Your task to perform on an android device: Open calendar and show me the fourth week of next month Image 0: 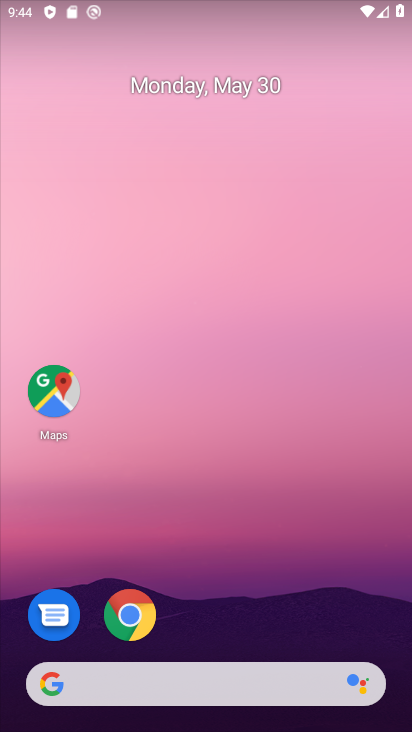
Step 0: drag from (249, 726) to (190, 66)
Your task to perform on an android device: Open calendar and show me the fourth week of next month Image 1: 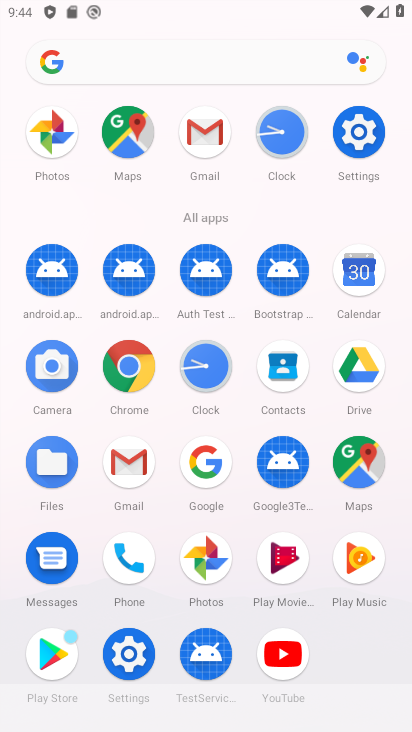
Step 1: click (360, 271)
Your task to perform on an android device: Open calendar and show me the fourth week of next month Image 2: 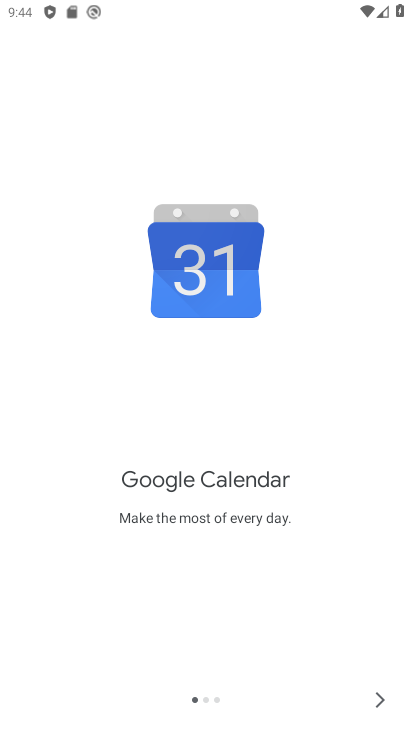
Step 2: click (377, 693)
Your task to perform on an android device: Open calendar and show me the fourth week of next month Image 3: 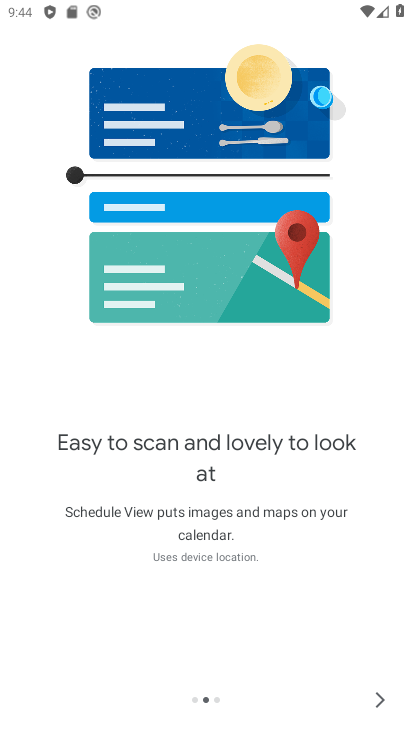
Step 3: click (379, 697)
Your task to perform on an android device: Open calendar and show me the fourth week of next month Image 4: 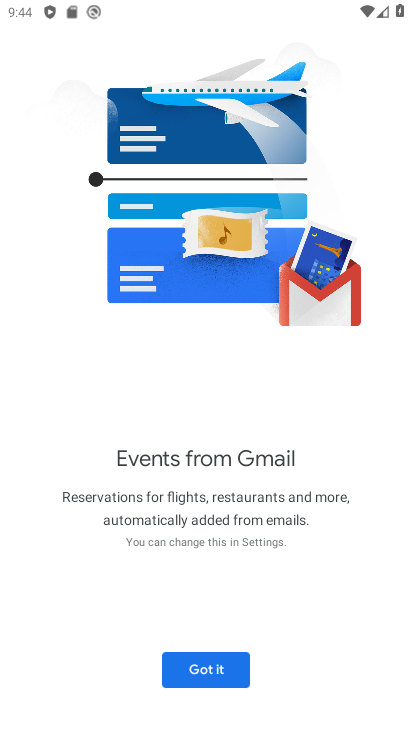
Step 4: click (221, 667)
Your task to perform on an android device: Open calendar and show me the fourth week of next month Image 5: 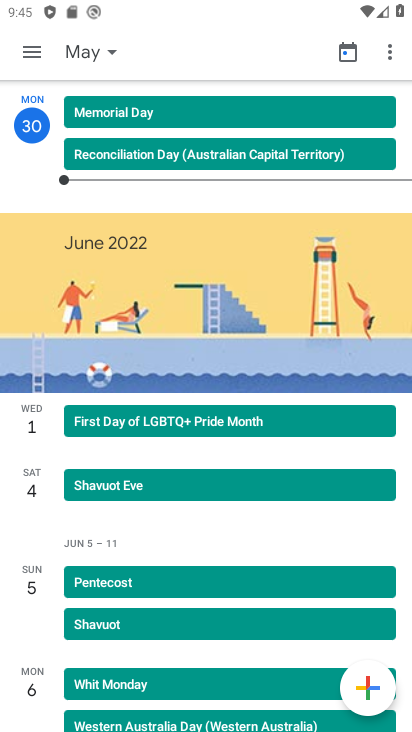
Step 5: click (103, 54)
Your task to perform on an android device: Open calendar and show me the fourth week of next month Image 6: 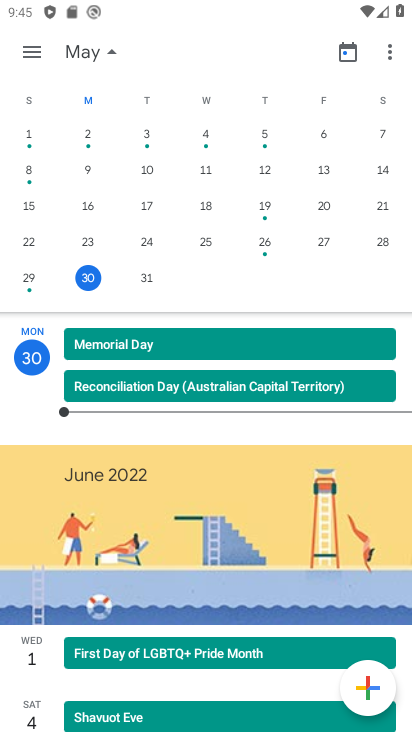
Step 6: drag from (320, 191) to (4, 189)
Your task to perform on an android device: Open calendar and show me the fourth week of next month Image 7: 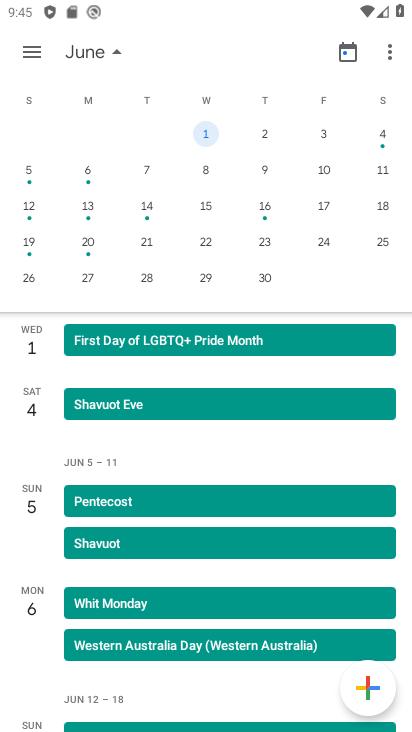
Step 7: click (86, 277)
Your task to perform on an android device: Open calendar and show me the fourth week of next month Image 8: 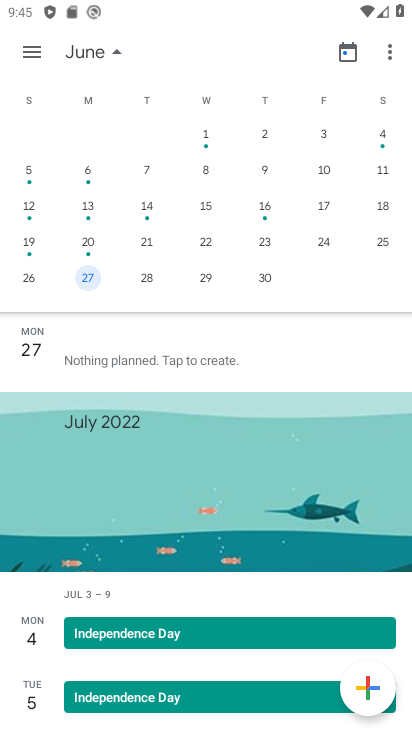
Step 8: click (29, 47)
Your task to perform on an android device: Open calendar and show me the fourth week of next month Image 9: 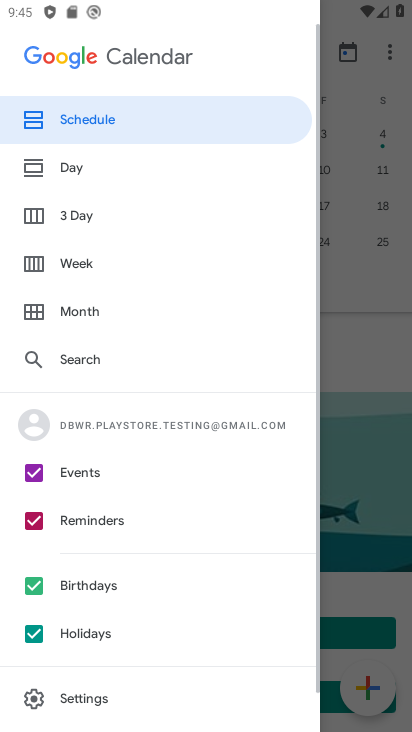
Step 9: click (74, 262)
Your task to perform on an android device: Open calendar and show me the fourth week of next month Image 10: 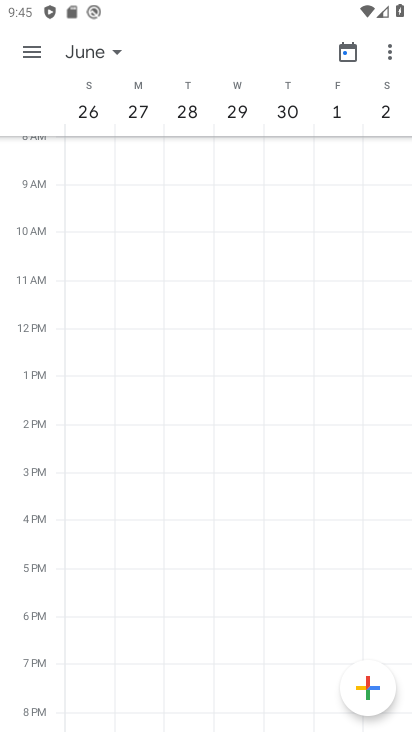
Step 10: task complete